Your task to perform on an android device: Go to Google Image 0: 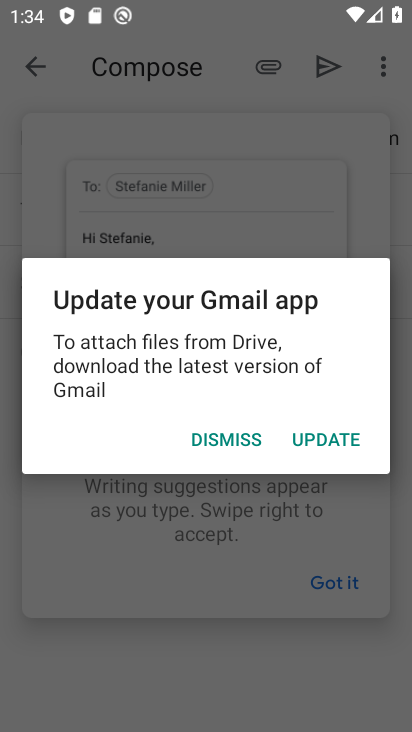
Step 0: press home button
Your task to perform on an android device: Go to Google Image 1: 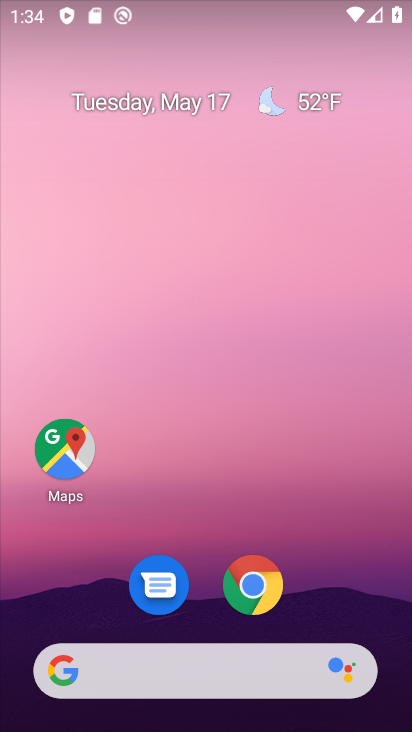
Step 1: click (220, 666)
Your task to perform on an android device: Go to Google Image 2: 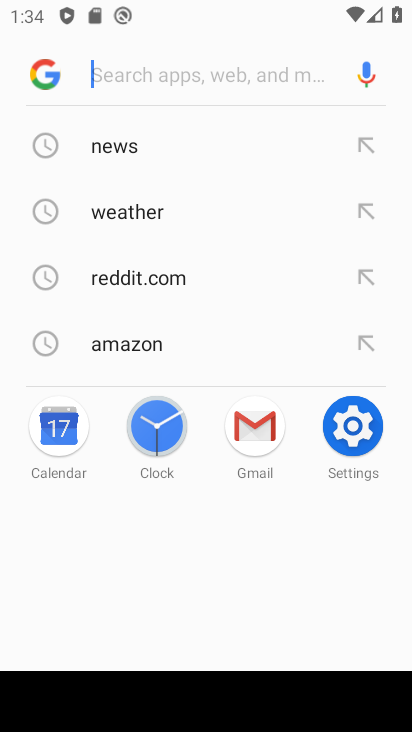
Step 2: click (42, 76)
Your task to perform on an android device: Go to Google Image 3: 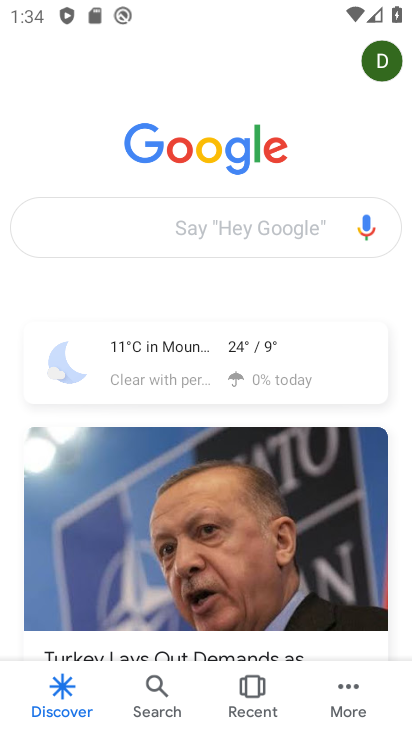
Step 3: task complete